Your task to perform on an android device: Toggle the flashlight Image 0: 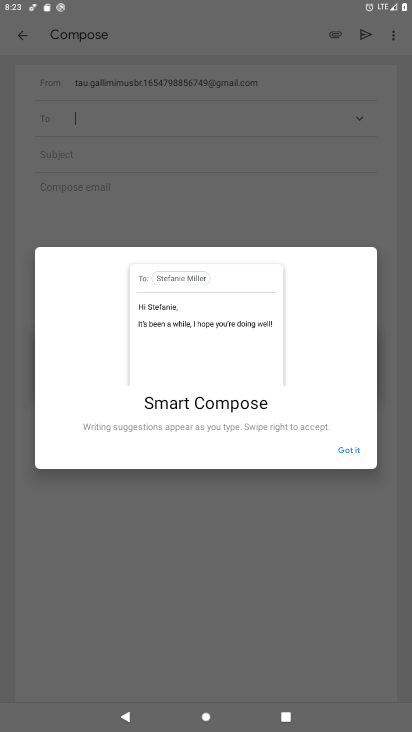
Step 0: press home button
Your task to perform on an android device: Toggle the flashlight Image 1: 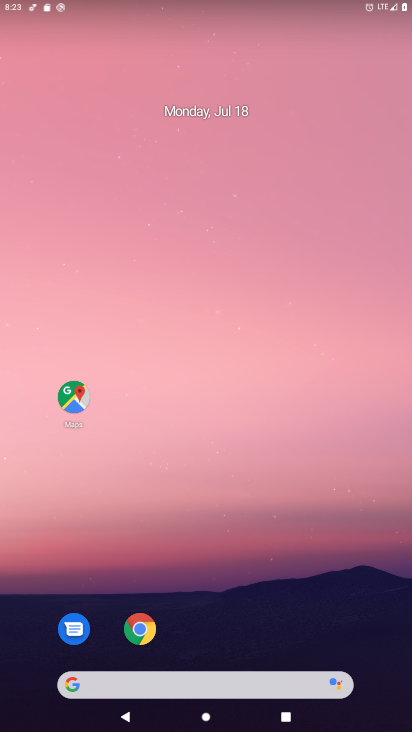
Step 1: drag from (193, 613) to (312, 12)
Your task to perform on an android device: Toggle the flashlight Image 2: 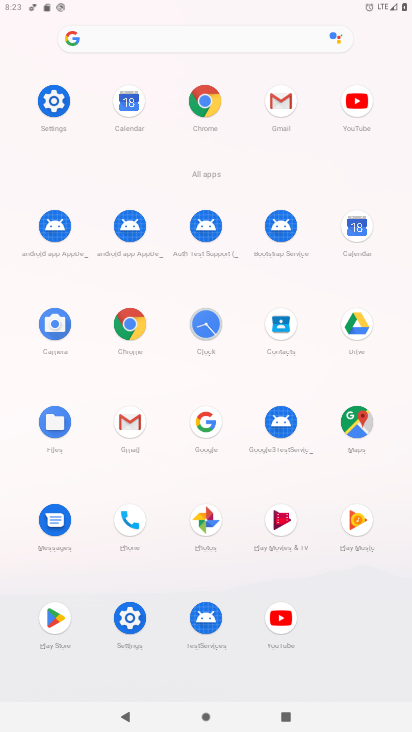
Step 2: click (124, 629)
Your task to perform on an android device: Toggle the flashlight Image 3: 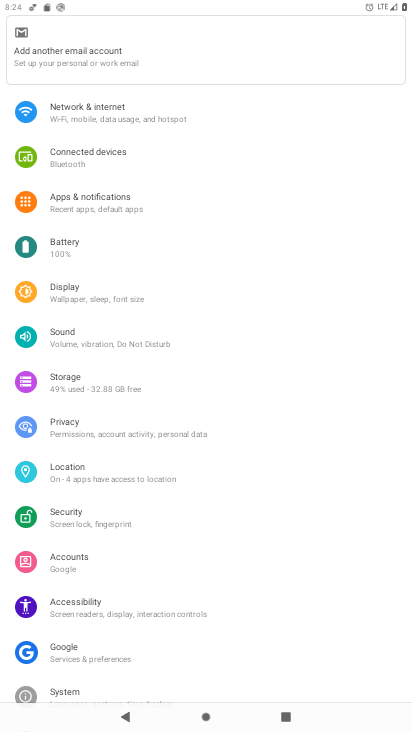
Step 3: drag from (154, 38) to (138, 505)
Your task to perform on an android device: Toggle the flashlight Image 4: 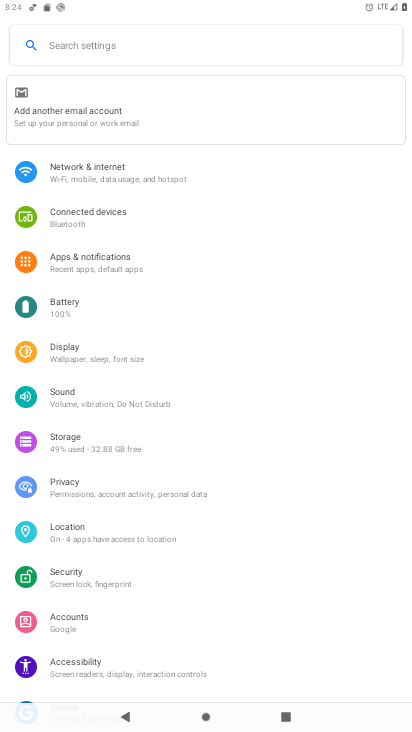
Step 4: click (136, 48)
Your task to perform on an android device: Toggle the flashlight Image 5: 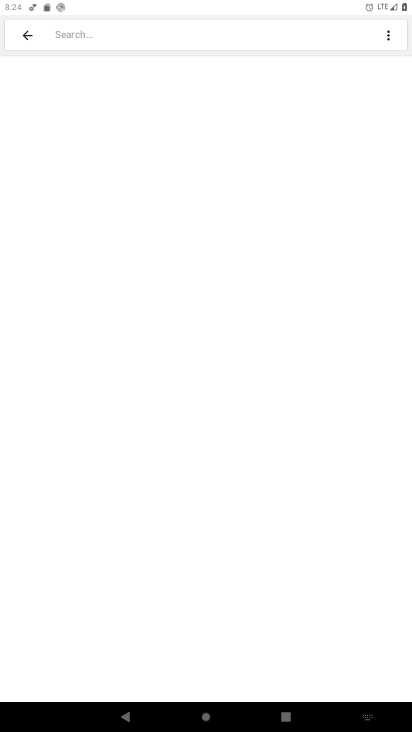
Step 5: type "flashlight"
Your task to perform on an android device: Toggle the flashlight Image 6: 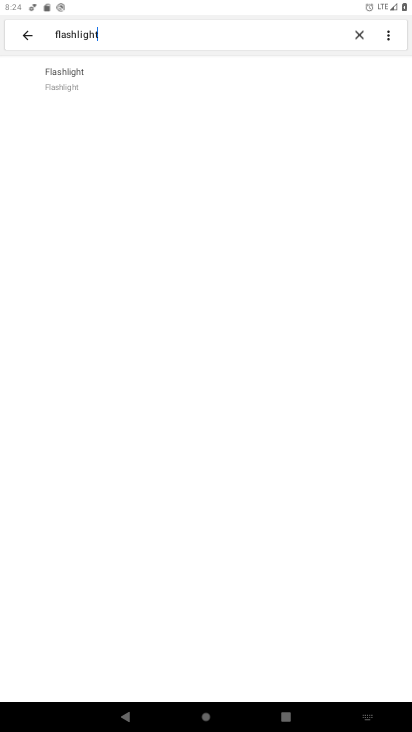
Step 6: click (85, 75)
Your task to perform on an android device: Toggle the flashlight Image 7: 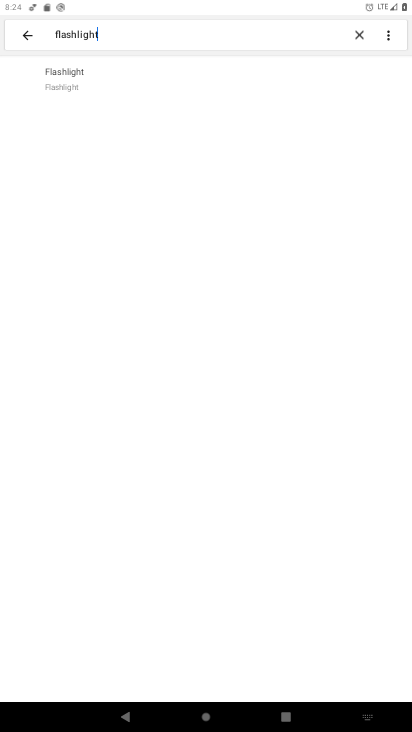
Step 7: click (87, 80)
Your task to perform on an android device: Toggle the flashlight Image 8: 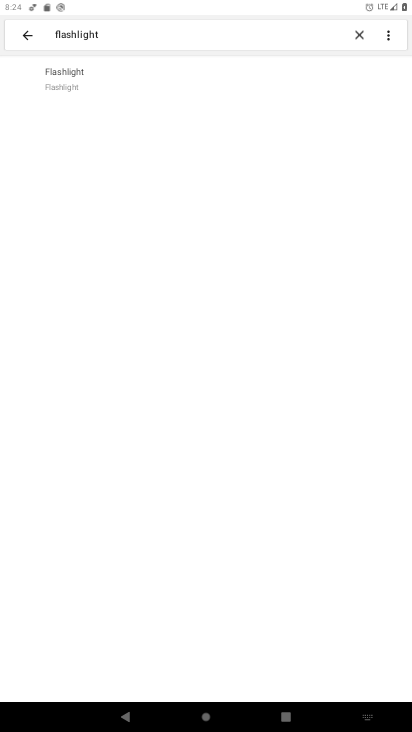
Step 8: click (74, 82)
Your task to perform on an android device: Toggle the flashlight Image 9: 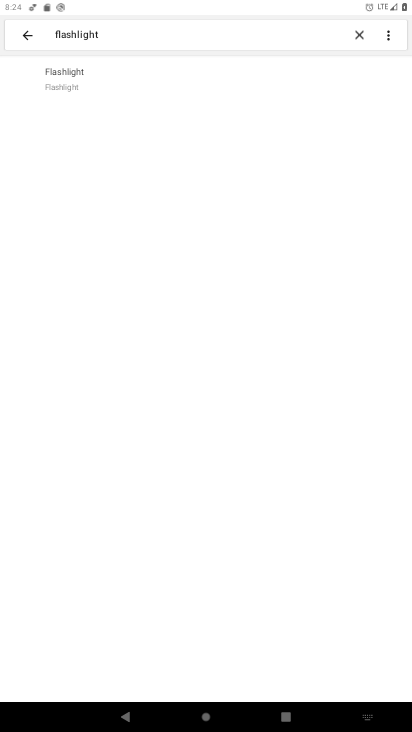
Step 9: task complete